Your task to perform on an android device: turn off improve location accuracy Image 0: 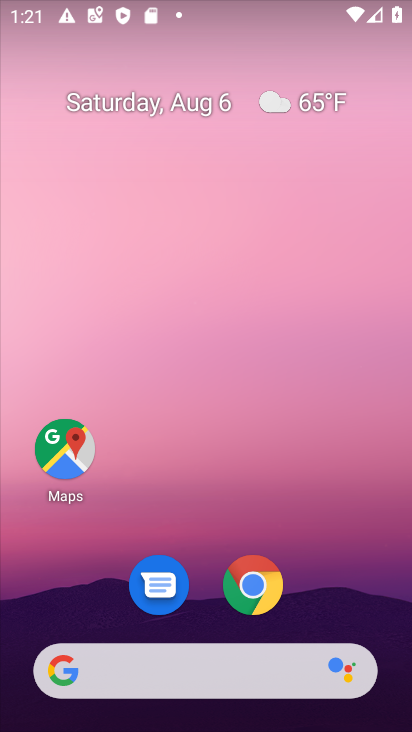
Step 0: drag from (328, 591) to (377, 0)
Your task to perform on an android device: turn off improve location accuracy Image 1: 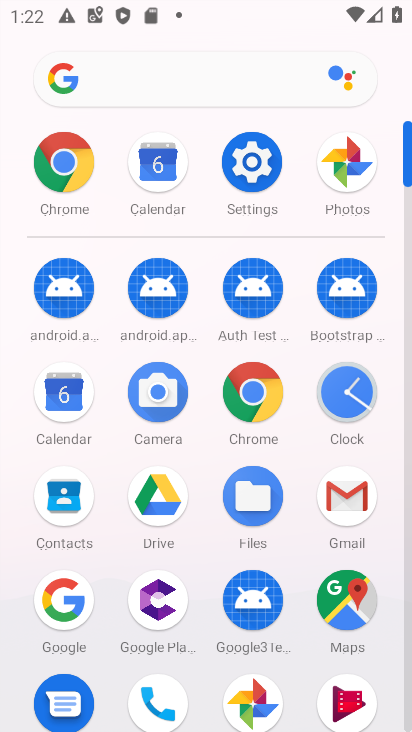
Step 1: click (262, 153)
Your task to perform on an android device: turn off improve location accuracy Image 2: 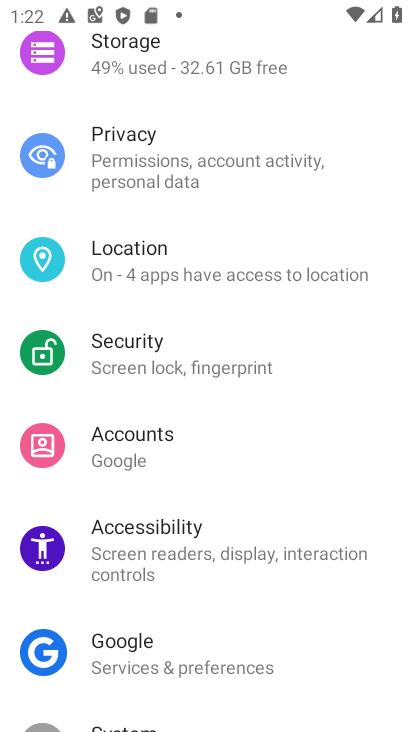
Step 2: click (229, 532)
Your task to perform on an android device: turn off improve location accuracy Image 3: 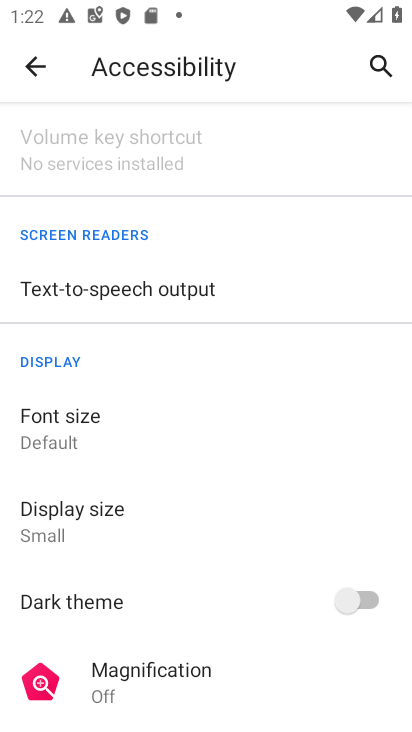
Step 3: click (45, 70)
Your task to perform on an android device: turn off improve location accuracy Image 4: 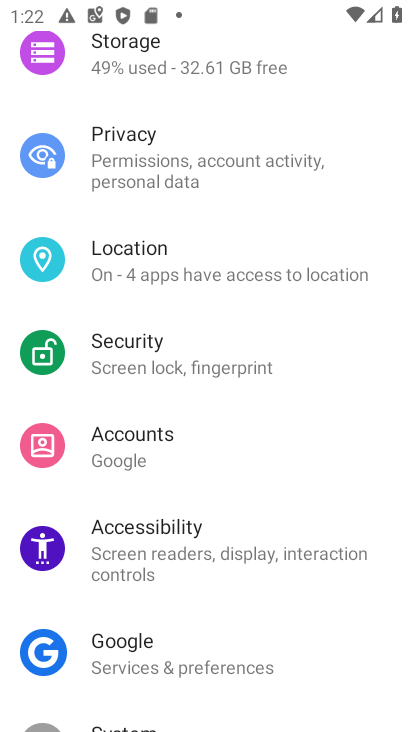
Step 4: click (237, 267)
Your task to perform on an android device: turn off improve location accuracy Image 5: 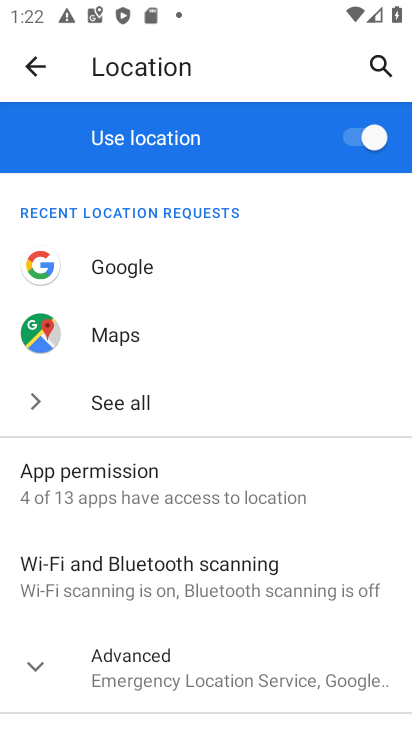
Step 5: click (35, 663)
Your task to perform on an android device: turn off improve location accuracy Image 6: 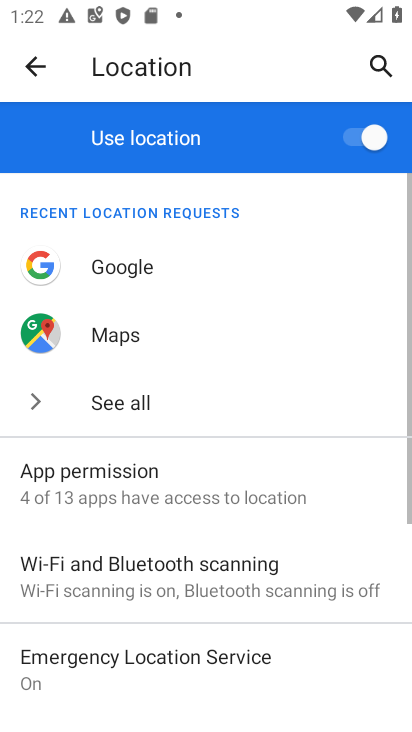
Step 6: drag from (267, 550) to (313, 48)
Your task to perform on an android device: turn off improve location accuracy Image 7: 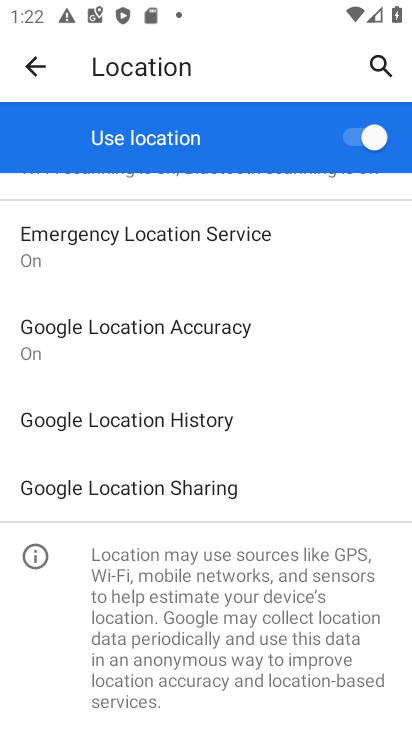
Step 7: click (224, 328)
Your task to perform on an android device: turn off improve location accuracy Image 8: 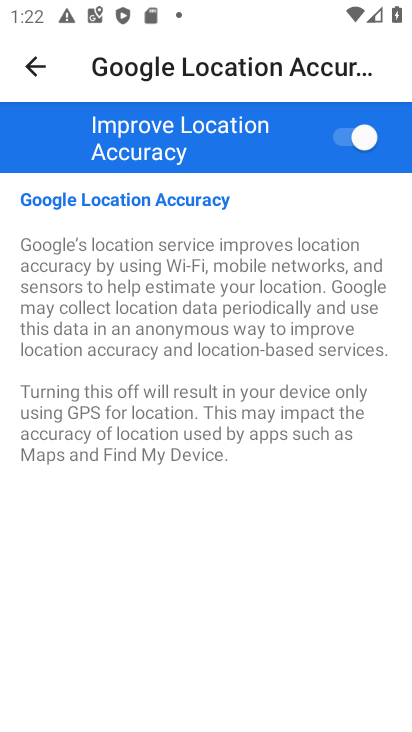
Step 8: click (345, 132)
Your task to perform on an android device: turn off improve location accuracy Image 9: 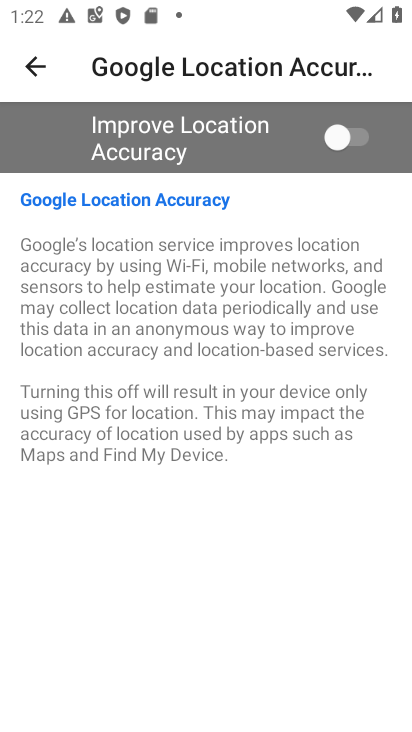
Step 9: task complete